Your task to perform on an android device: Open calendar and show me the fourth week of next month Image 0: 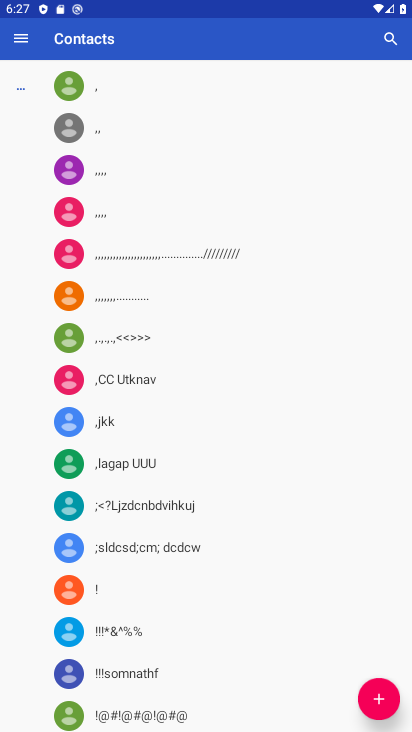
Step 0: press home button
Your task to perform on an android device: Open calendar and show me the fourth week of next month Image 1: 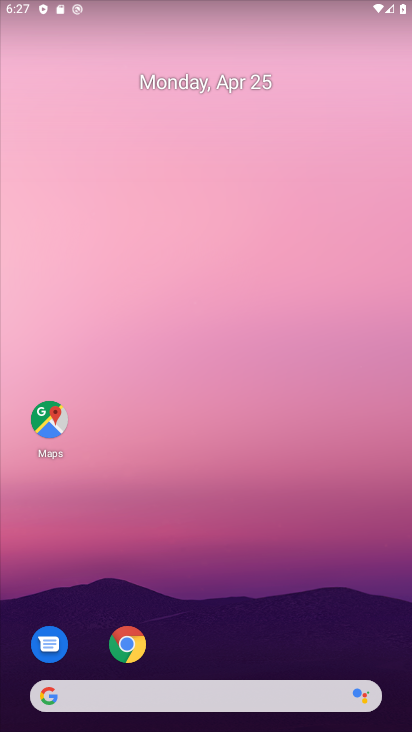
Step 1: drag from (229, 548) to (240, 19)
Your task to perform on an android device: Open calendar and show me the fourth week of next month Image 2: 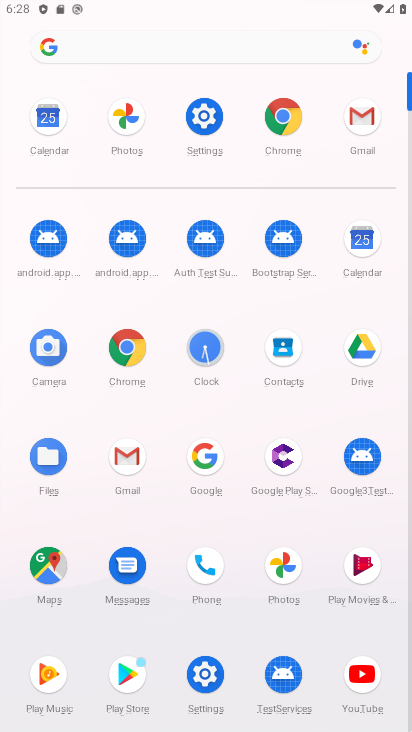
Step 2: click (371, 242)
Your task to perform on an android device: Open calendar and show me the fourth week of next month Image 3: 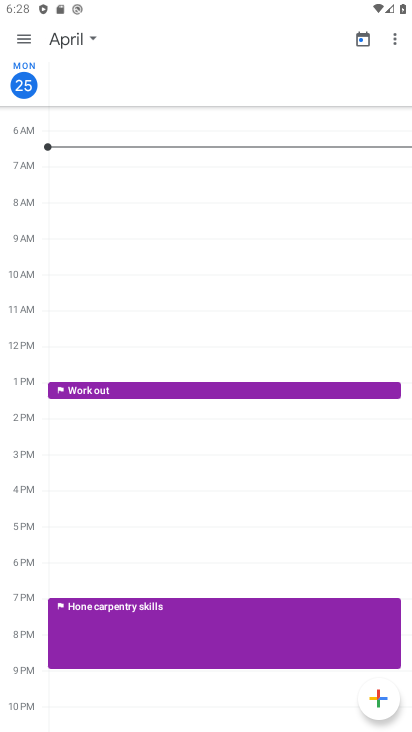
Step 3: click (19, 35)
Your task to perform on an android device: Open calendar and show me the fourth week of next month Image 4: 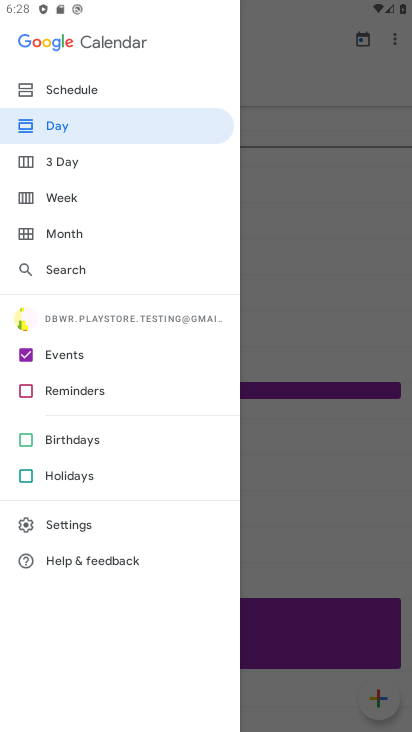
Step 4: click (67, 195)
Your task to perform on an android device: Open calendar and show me the fourth week of next month Image 5: 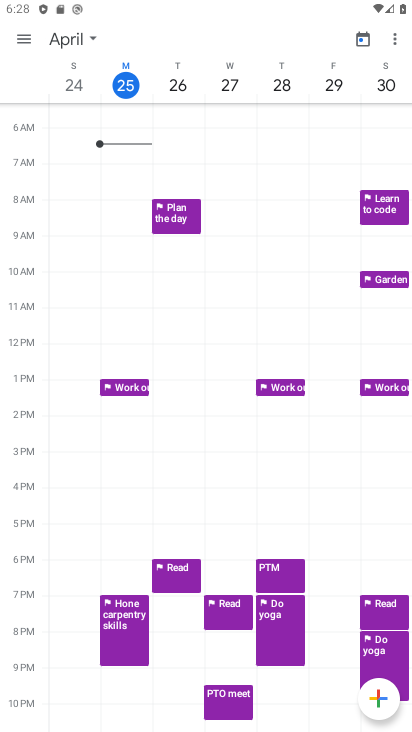
Step 5: click (76, 35)
Your task to perform on an android device: Open calendar and show me the fourth week of next month Image 6: 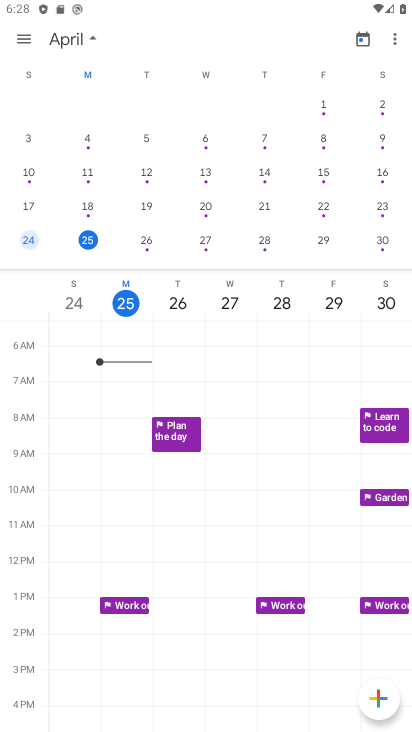
Step 6: drag from (359, 179) to (1, 150)
Your task to perform on an android device: Open calendar and show me the fourth week of next month Image 7: 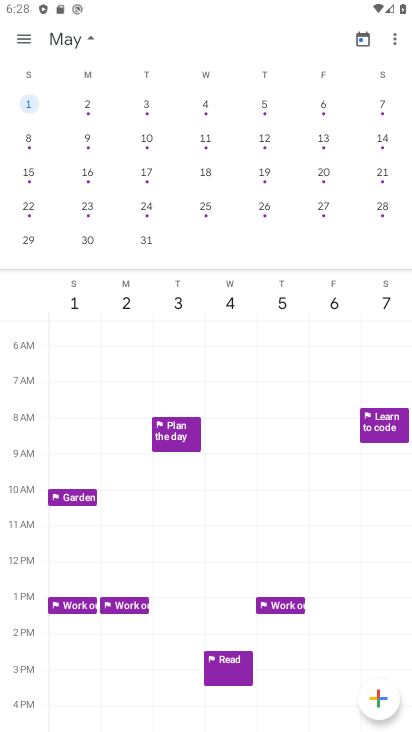
Step 7: click (31, 203)
Your task to perform on an android device: Open calendar and show me the fourth week of next month Image 8: 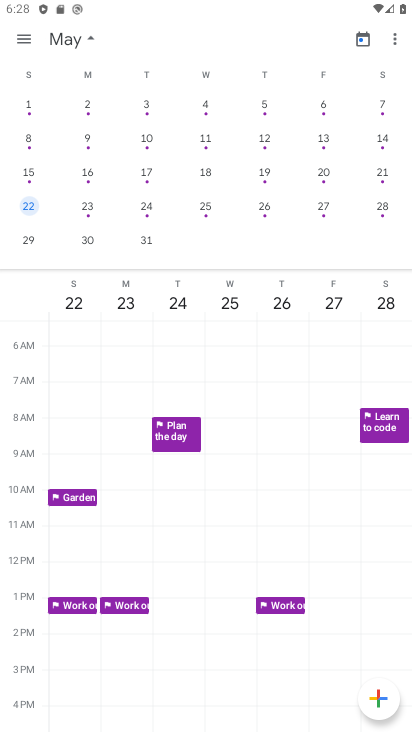
Step 8: task complete